Your task to perform on an android device: turn on data saver in the chrome app Image 0: 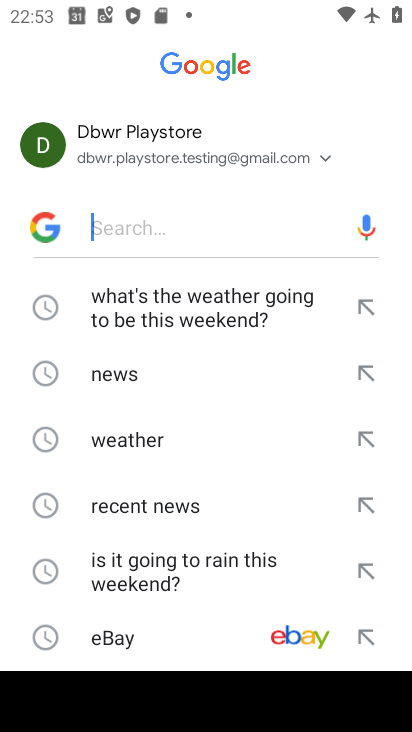
Step 0: press home button
Your task to perform on an android device: turn on data saver in the chrome app Image 1: 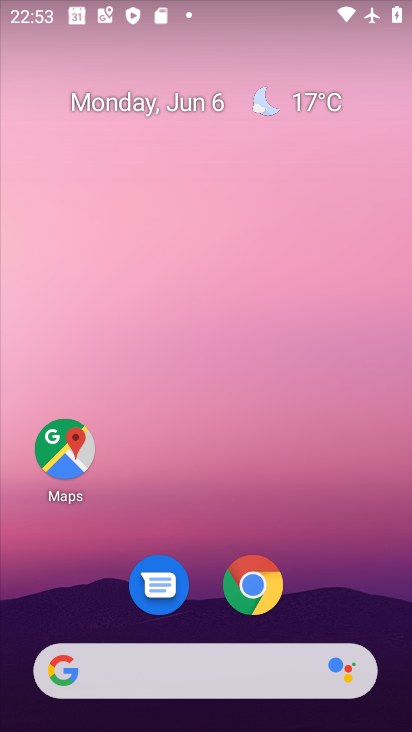
Step 1: click (259, 578)
Your task to perform on an android device: turn on data saver in the chrome app Image 2: 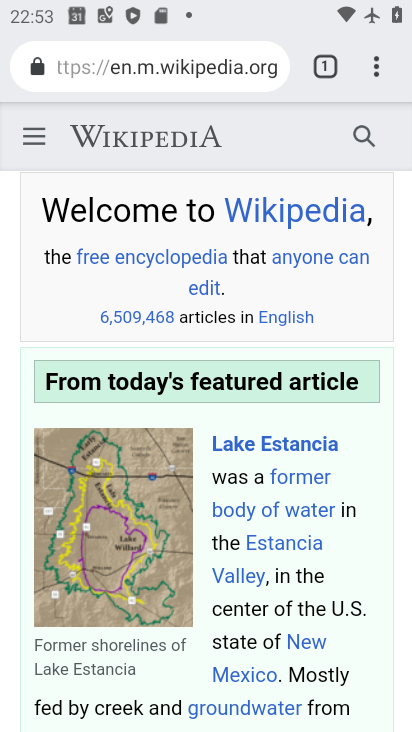
Step 2: click (372, 62)
Your task to perform on an android device: turn on data saver in the chrome app Image 3: 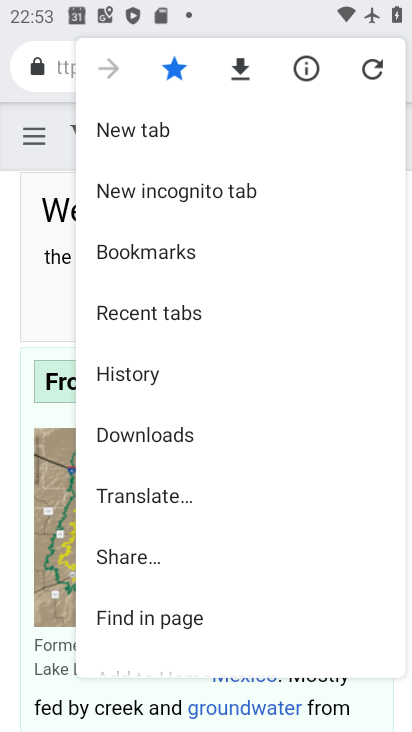
Step 3: drag from (197, 569) to (230, 192)
Your task to perform on an android device: turn on data saver in the chrome app Image 4: 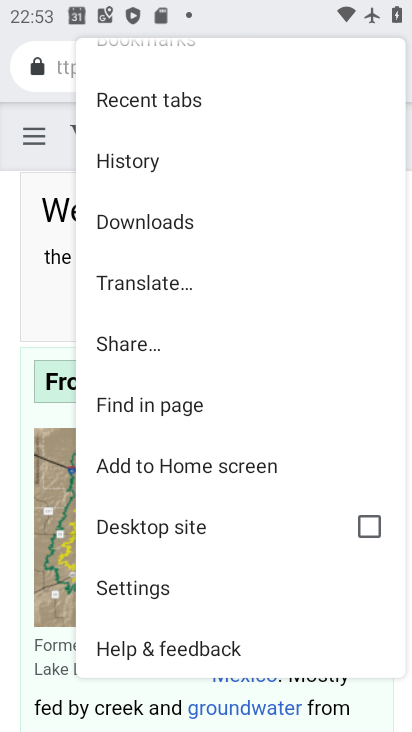
Step 4: click (177, 584)
Your task to perform on an android device: turn on data saver in the chrome app Image 5: 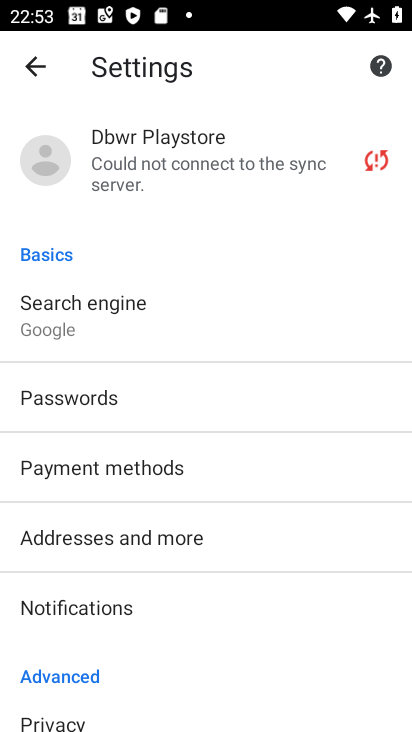
Step 5: drag from (251, 473) to (259, 246)
Your task to perform on an android device: turn on data saver in the chrome app Image 6: 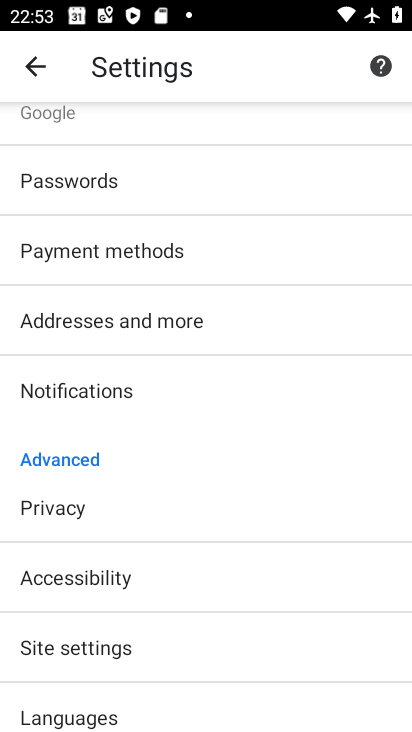
Step 6: drag from (215, 553) to (238, 234)
Your task to perform on an android device: turn on data saver in the chrome app Image 7: 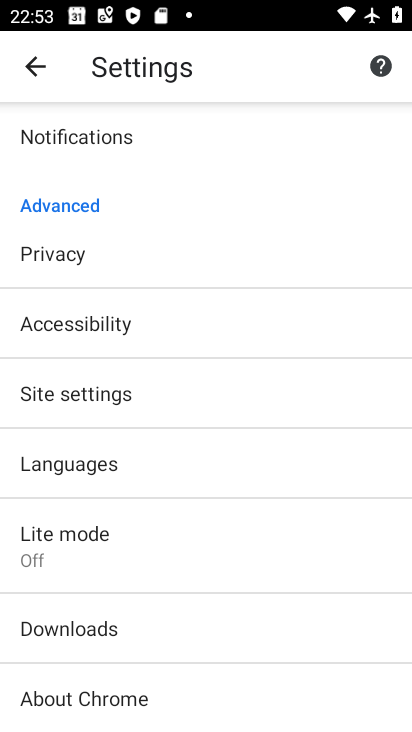
Step 7: click (158, 557)
Your task to perform on an android device: turn on data saver in the chrome app Image 8: 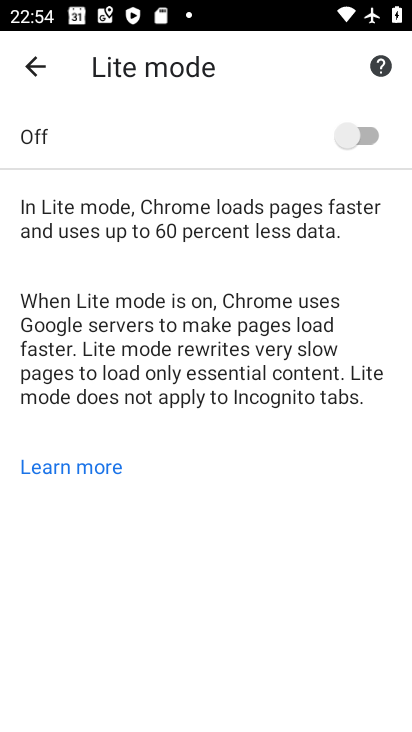
Step 8: click (366, 125)
Your task to perform on an android device: turn on data saver in the chrome app Image 9: 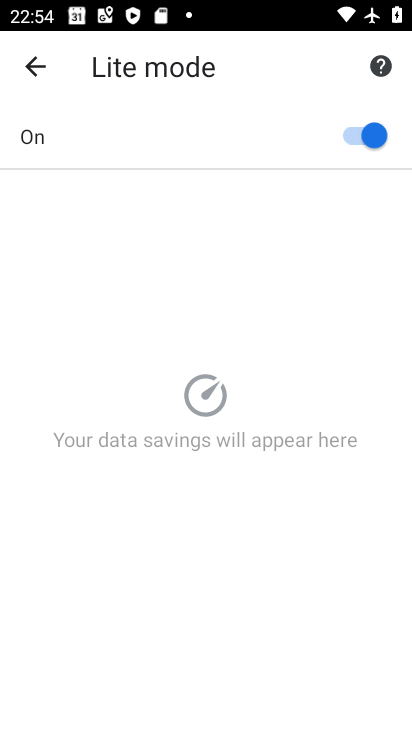
Step 9: task complete